Your task to perform on an android device: toggle improve location accuracy Image 0: 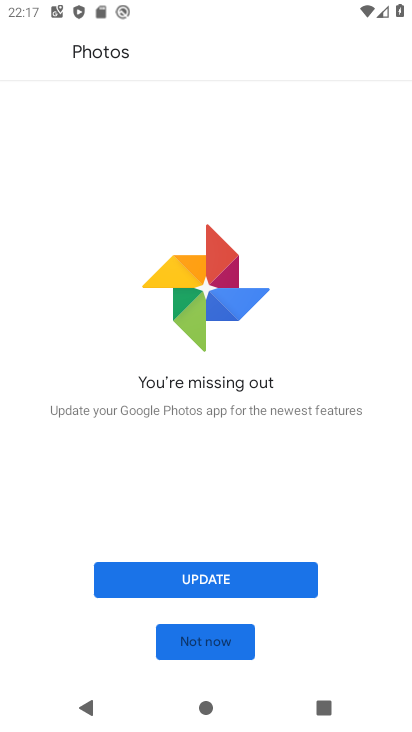
Step 0: press home button
Your task to perform on an android device: toggle improve location accuracy Image 1: 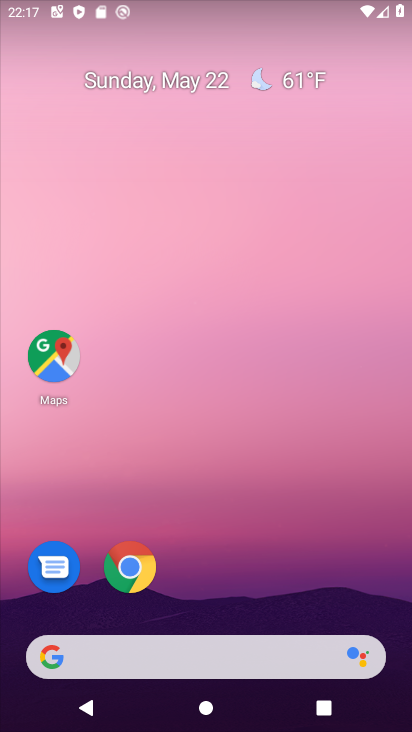
Step 1: drag from (231, 629) to (245, 0)
Your task to perform on an android device: toggle improve location accuracy Image 2: 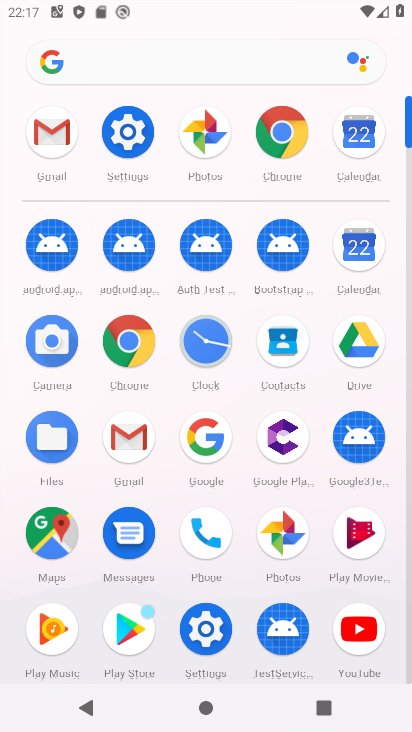
Step 2: click (131, 138)
Your task to perform on an android device: toggle improve location accuracy Image 3: 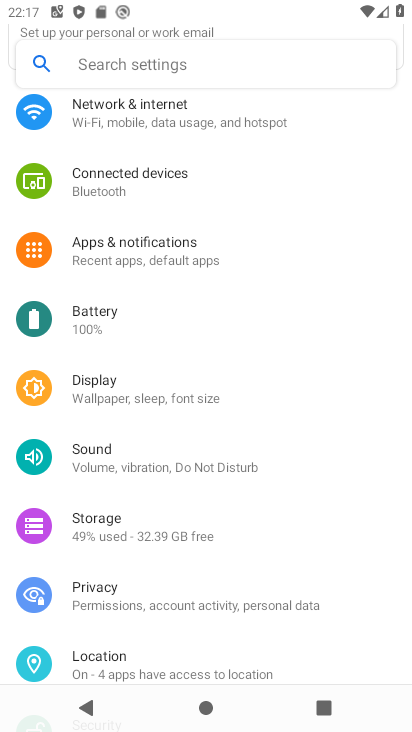
Step 3: click (153, 650)
Your task to perform on an android device: toggle improve location accuracy Image 4: 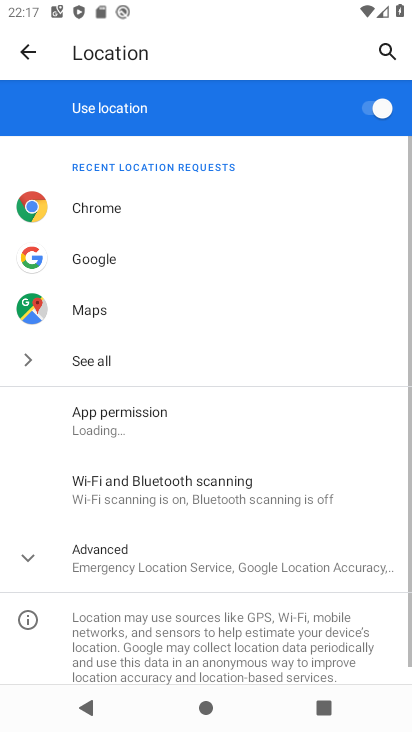
Step 4: click (166, 560)
Your task to perform on an android device: toggle improve location accuracy Image 5: 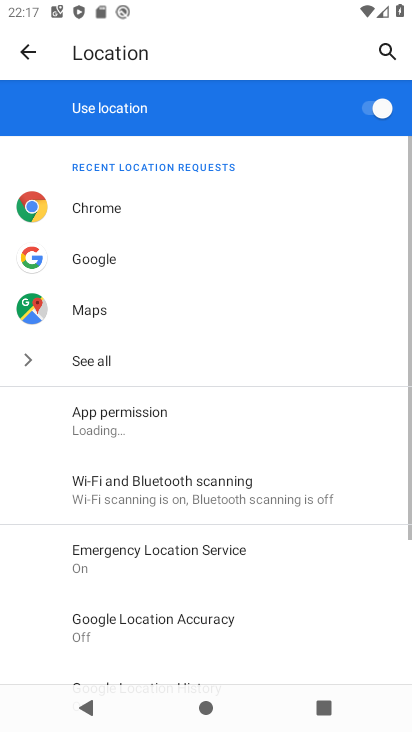
Step 5: click (167, 596)
Your task to perform on an android device: toggle improve location accuracy Image 6: 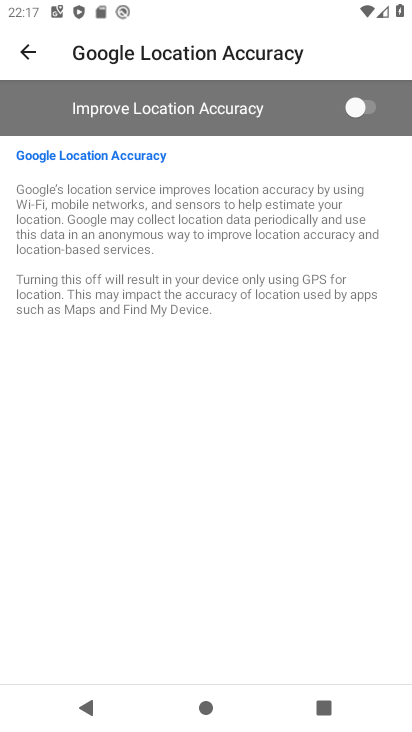
Step 6: click (361, 108)
Your task to perform on an android device: toggle improve location accuracy Image 7: 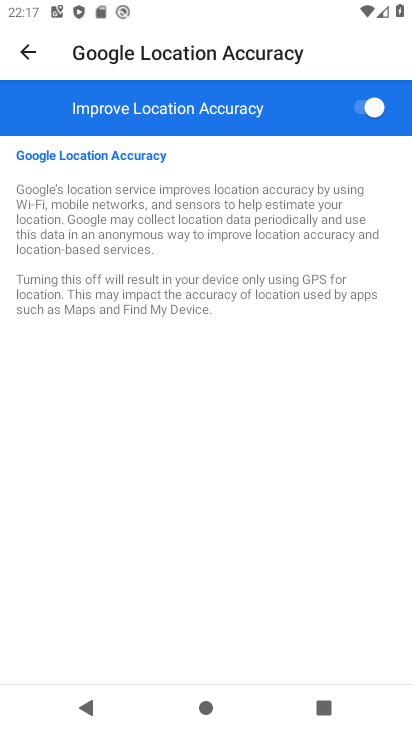
Step 7: task complete